Your task to perform on an android device: Go to Yahoo.com Image 0: 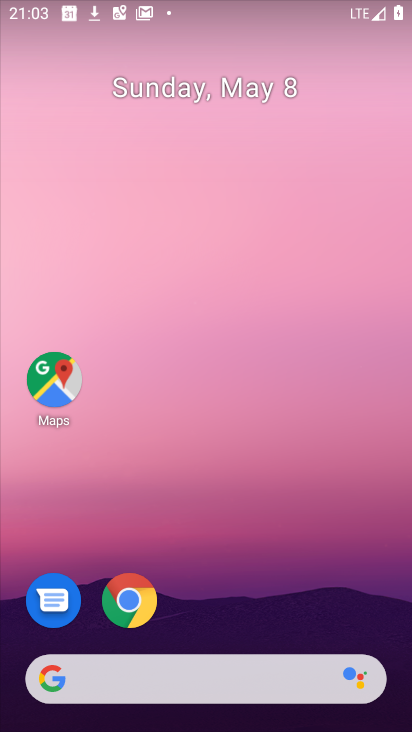
Step 0: drag from (272, 702) to (272, 359)
Your task to perform on an android device: Go to Yahoo.com Image 1: 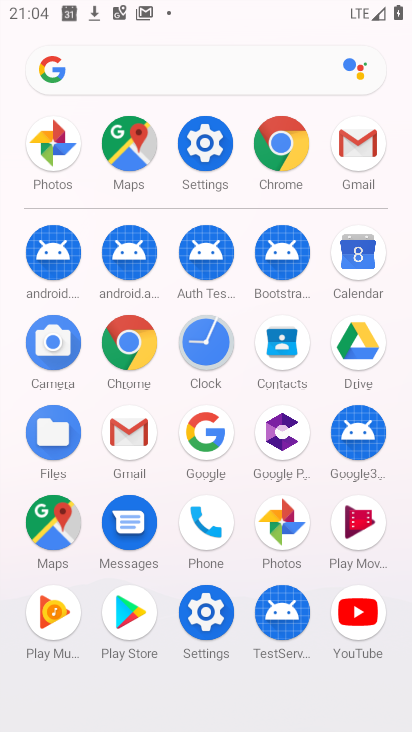
Step 1: click (280, 156)
Your task to perform on an android device: Go to Yahoo.com Image 2: 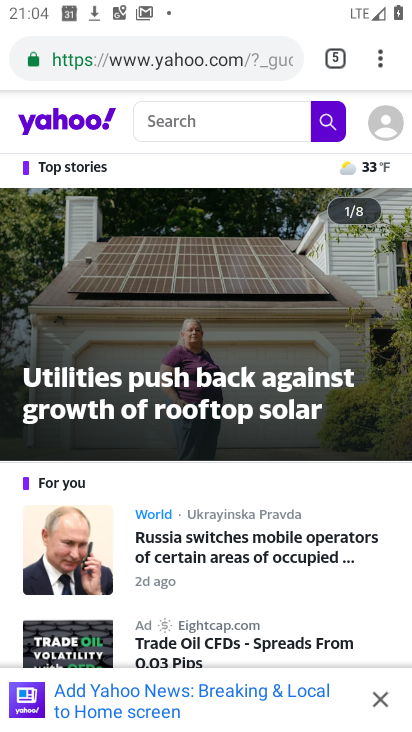
Step 2: task complete